Your task to perform on an android device: stop showing notifications on the lock screen Image 0: 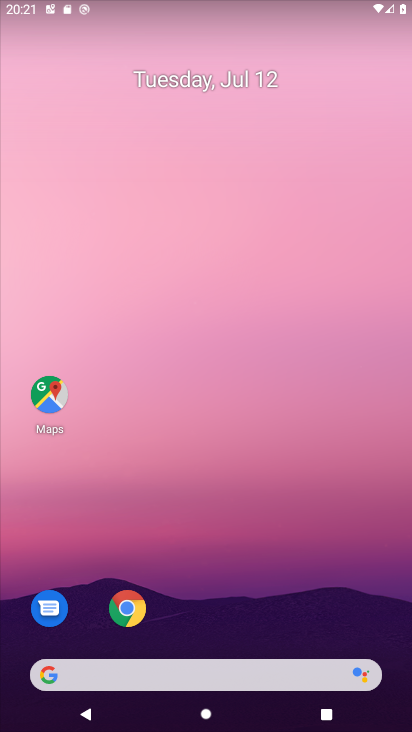
Step 0: drag from (178, 664) to (280, 173)
Your task to perform on an android device: stop showing notifications on the lock screen Image 1: 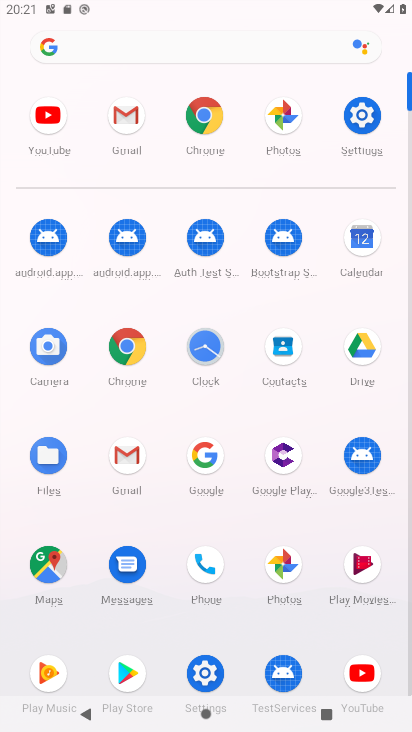
Step 1: click (354, 119)
Your task to perform on an android device: stop showing notifications on the lock screen Image 2: 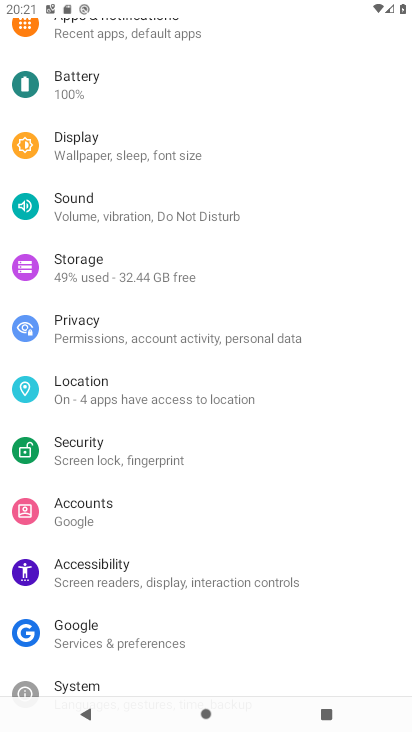
Step 2: drag from (246, 96) to (239, 449)
Your task to perform on an android device: stop showing notifications on the lock screen Image 3: 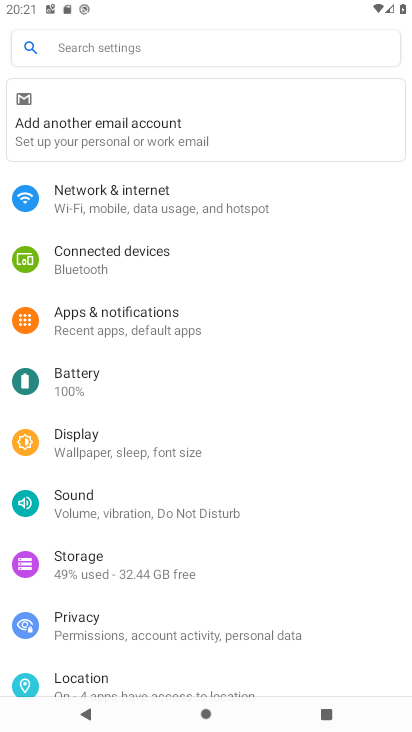
Step 3: click (151, 320)
Your task to perform on an android device: stop showing notifications on the lock screen Image 4: 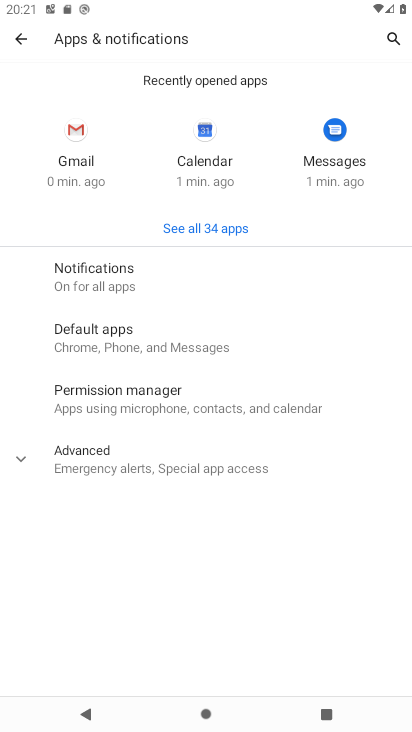
Step 4: click (106, 275)
Your task to perform on an android device: stop showing notifications on the lock screen Image 5: 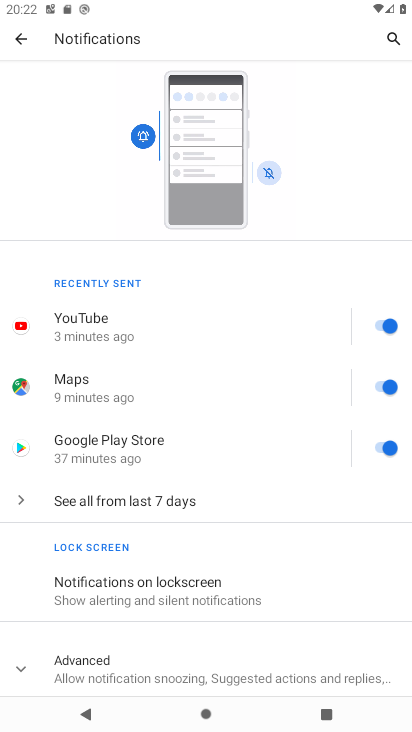
Step 5: click (199, 585)
Your task to perform on an android device: stop showing notifications on the lock screen Image 6: 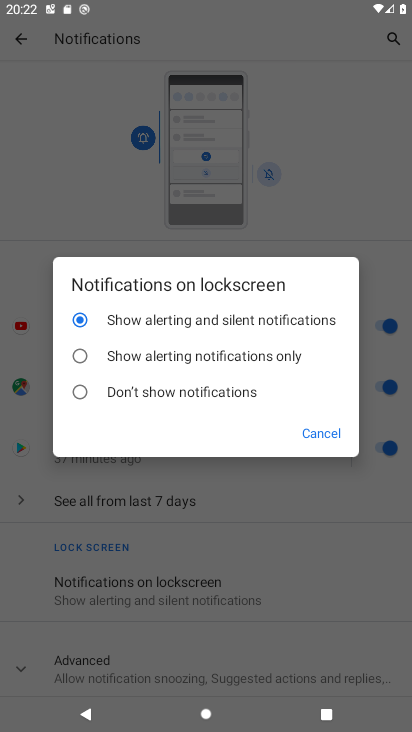
Step 6: click (78, 390)
Your task to perform on an android device: stop showing notifications on the lock screen Image 7: 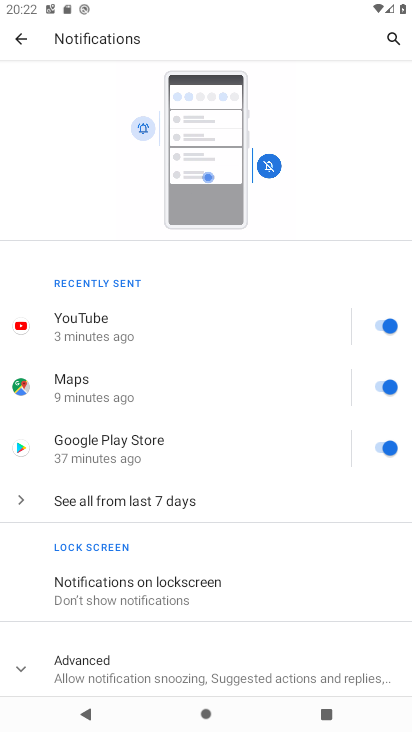
Step 7: task complete